Your task to perform on an android device: install app "Flipkart Online Shopping App" Image 0: 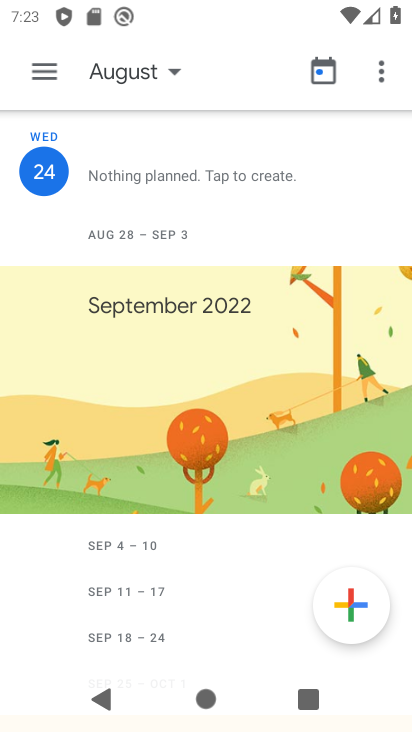
Step 0: press home button
Your task to perform on an android device: install app "Flipkart Online Shopping App" Image 1: 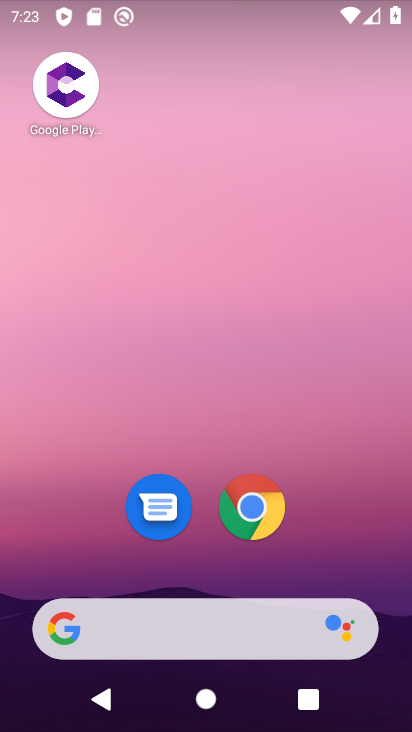
Step 1: drag from (351, 554) to (364, 68)
Your task to perform on an android device: install app "Flipkart Online Shopping App" Image 2: 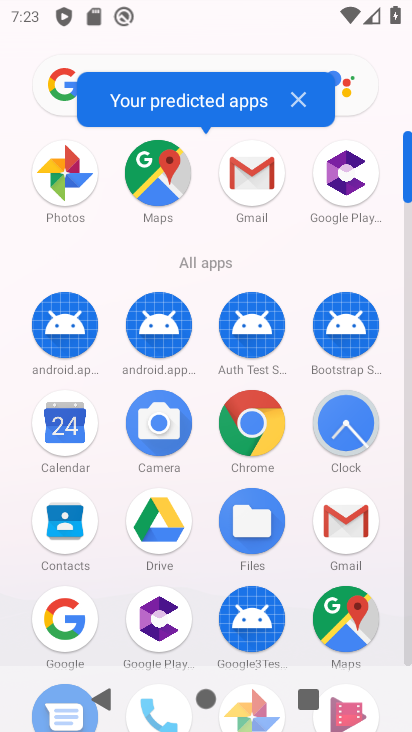
Step 2: drag from (389, 580) to (409, 193)
Your task to perform on an android device: install app "Flipkart Online Shopping App" Image 3: 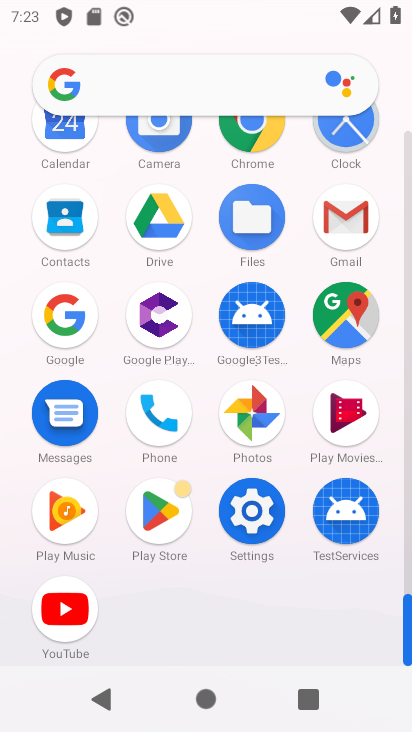
Step 3: click (167, 510)
Your task to perform on an android device: install app "Flipkart Online Shopping App" Image 4: 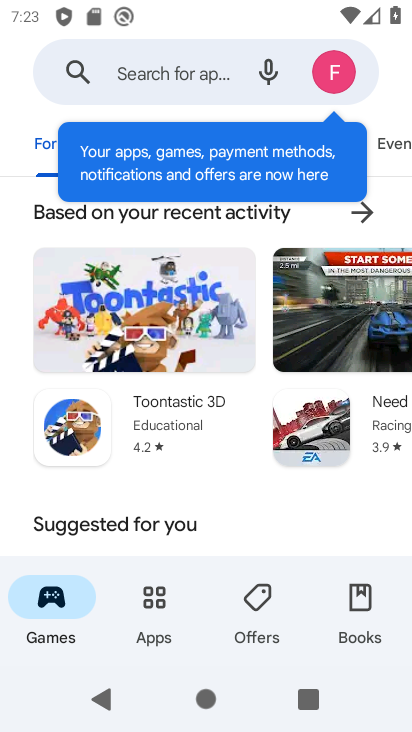
Step 4: click (193, 73)
Your task to perform on an android device: install app "Flipkart Online Shopping App" Image 5: 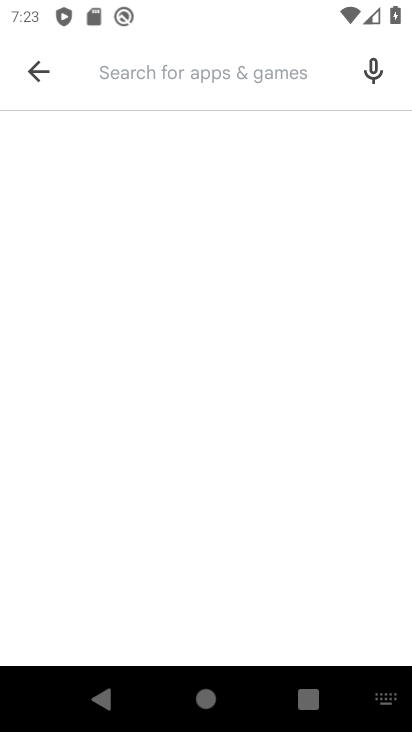
Step 5: type "Flipkart Online Shopping App"
Your task to perform on an android device: install app "Flipkart Online Shopping App" Image 6: 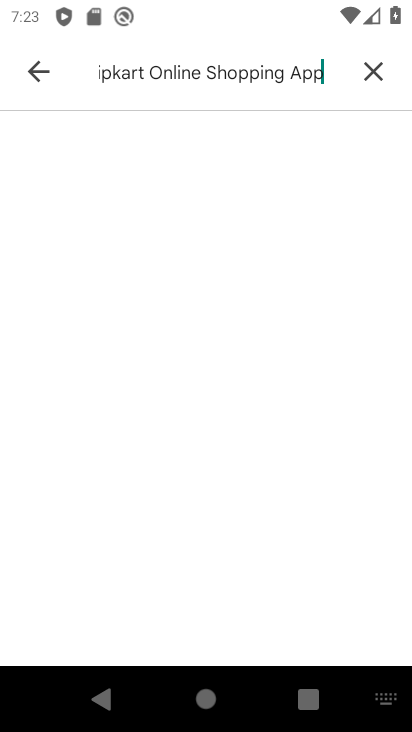
Step 6: press enter
Your task to perform on an android device: install app "Flipkart Online Shopping App" Image 7: 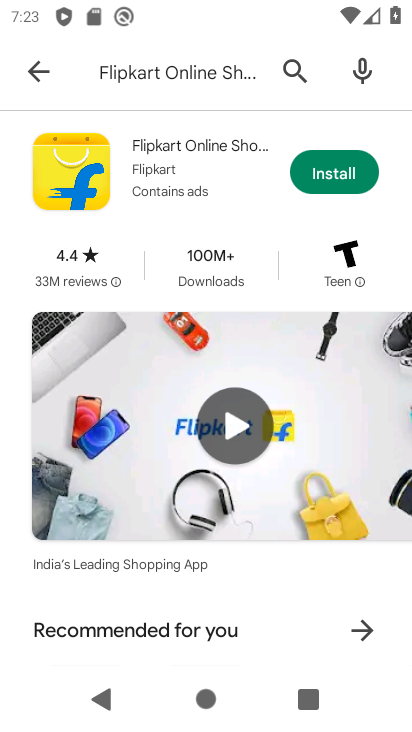
Step 7: click (341, 173)
Your task to perform on an android device: install app "Flipkart Online Shopping App" Image 8: 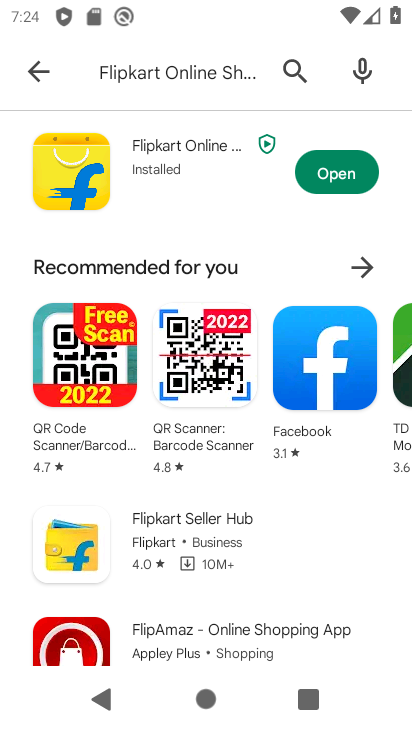
Step 8: task complete